Your task to perform on an android device: Show me productivity apps on the Play Store Image 0: 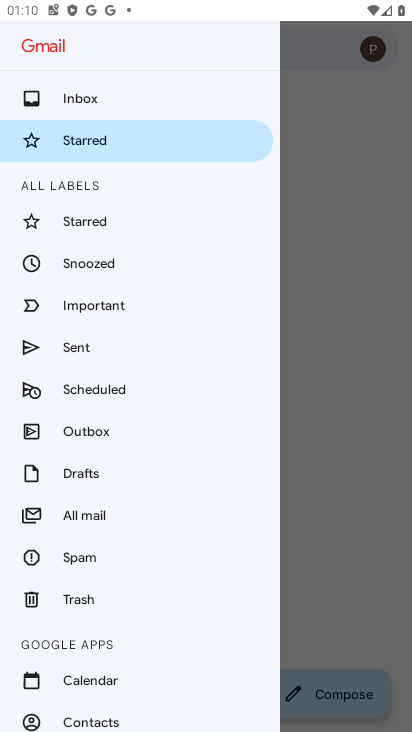
Step 0: drag from (205, 654) to (238, 270)
Your task to perform on an android device: Show me productivity apps on the Play Store Image 1: 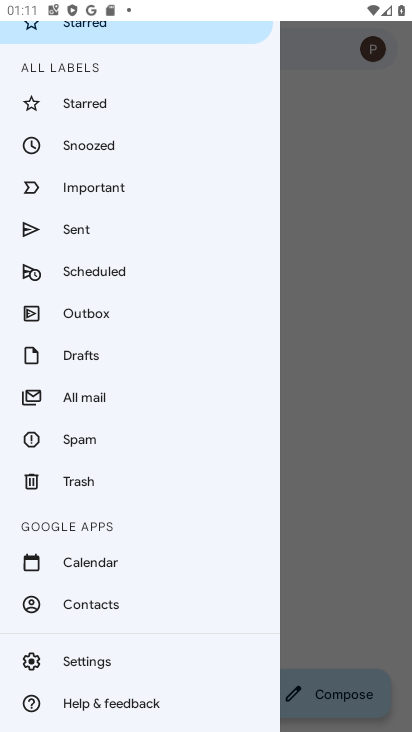
Step 1: press home button
Your task to perform on an android device: Show me productivity apps on the Play Store Image 2: 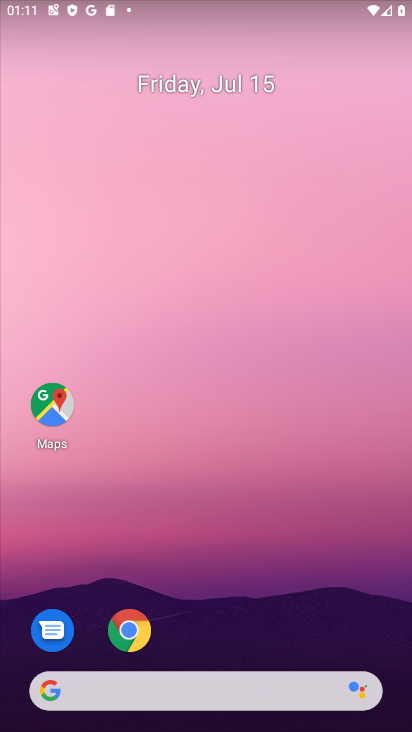
Step 2: drag from (327, 604) to (239, 1)
Your task to perform on an android device: Show me productivity apps on the Play Store Image 3: 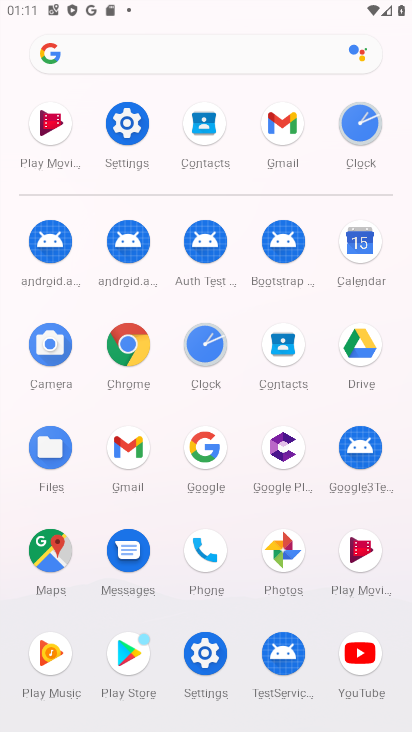
Step 3: click (128, 668)
Your task to perform on an android device: Show me productivity apps on the Play Store Image 4: 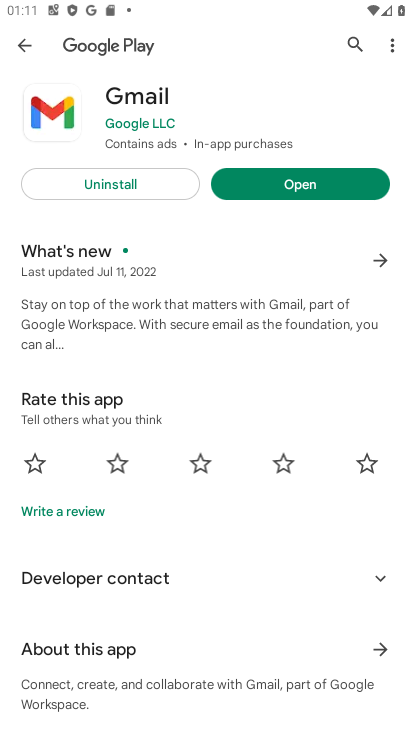
Step 4: press home button
Your task to perform on an android device: Show me productivity apps on the Play Store Image 5: 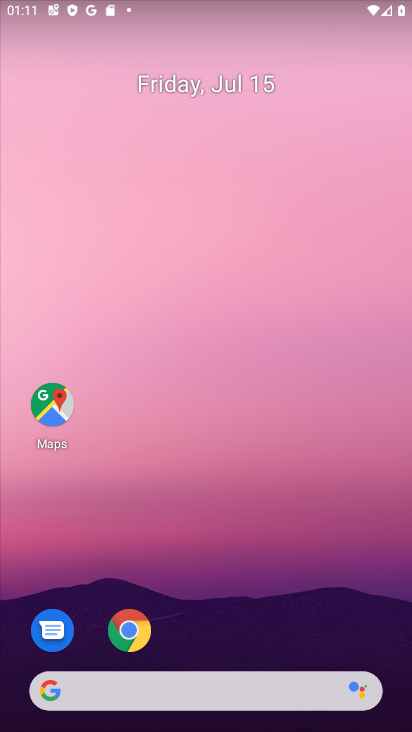
Step 5: drag from (295, 606) to (185, 79)
Your task to perform on an android device: Show me productivity apps on the Play Store Image 6: 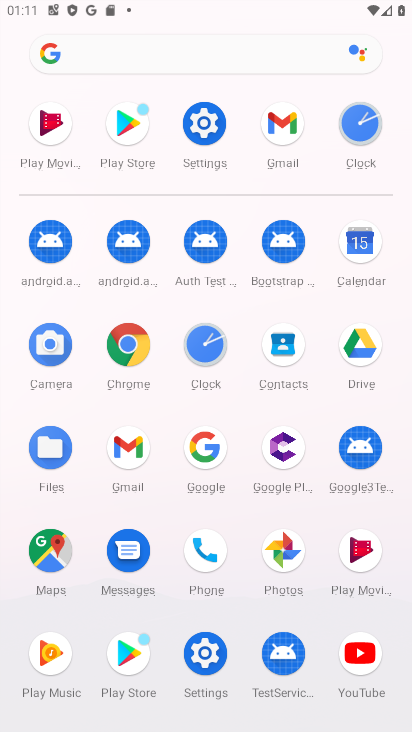
Step 6: click (134, 140)
Your task to perform on an android device: Show me productivity apps on the Play Store Image 7: 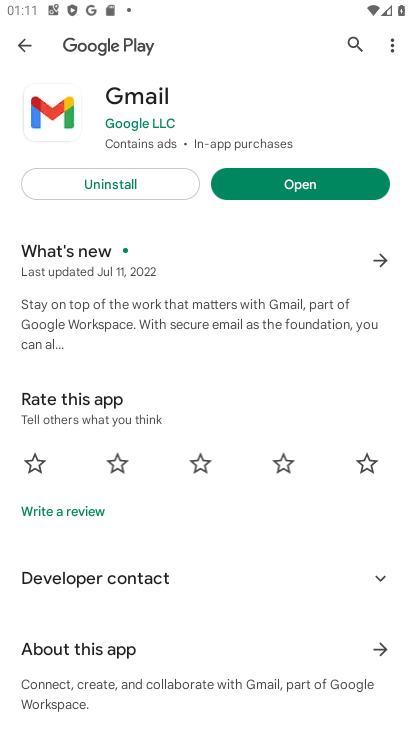
Step 7: press home button
Your task to perform on an android device: Show me productivity apps on the Play Store Image 8: 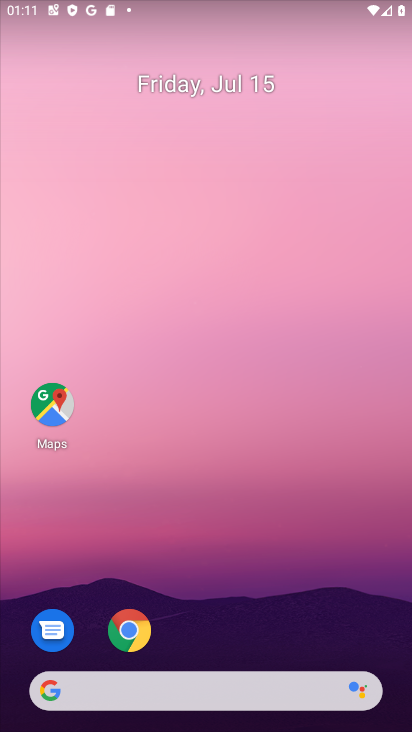
Step 8: drag from (285, 625) to (212, 179)
Your task to perform on an android device: Show me productivity apps on the Play Store Image 9: 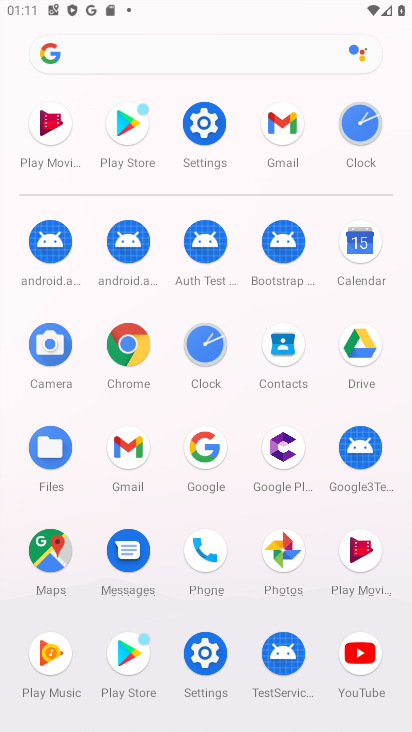
Step 9: click (127, 658)
Your task to perform on an android device: Show me productivity apps on the Play Store Image 10: 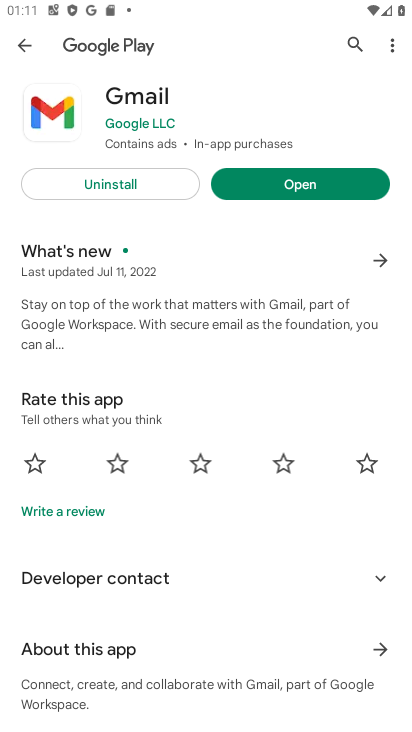
Step 10: click (21, 50)
Your task to perform on an android device: Show me productivity apps on the Play Store Image 11: 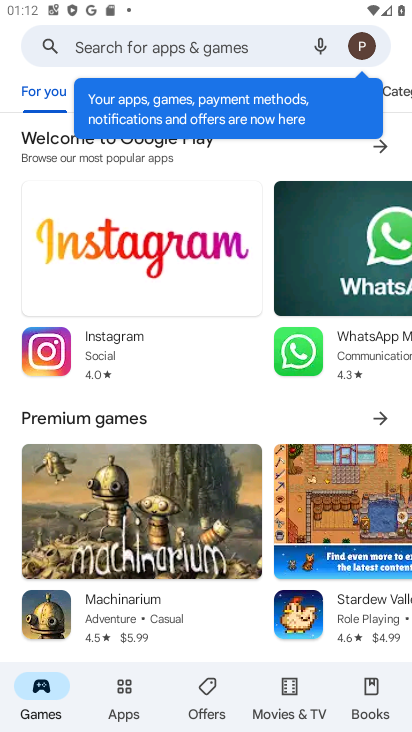
Step 11: task complete